Your task to perform on an android device: toggle sleep mode Image 0: 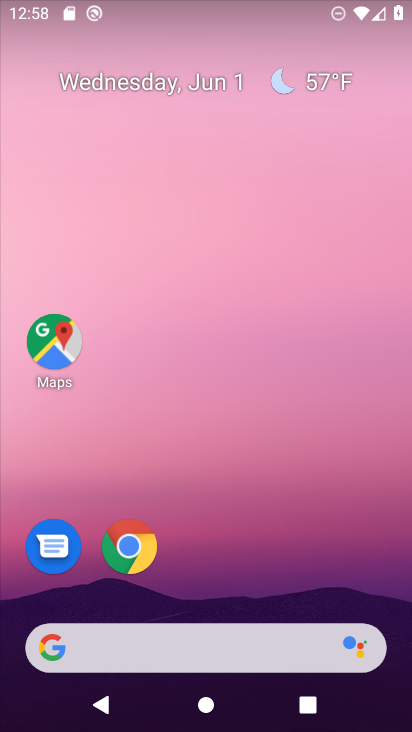
Step 0: drag from (205, 594) to (182, 5)
Your task to perform on an android device: toggle sleep mode Image 1: 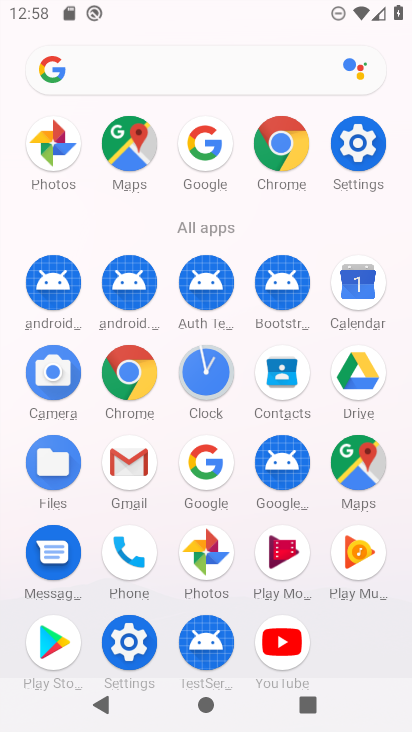
Step 1: click (356, 143)
Your task to perform on an android device: toggle sleep mode Image 2: 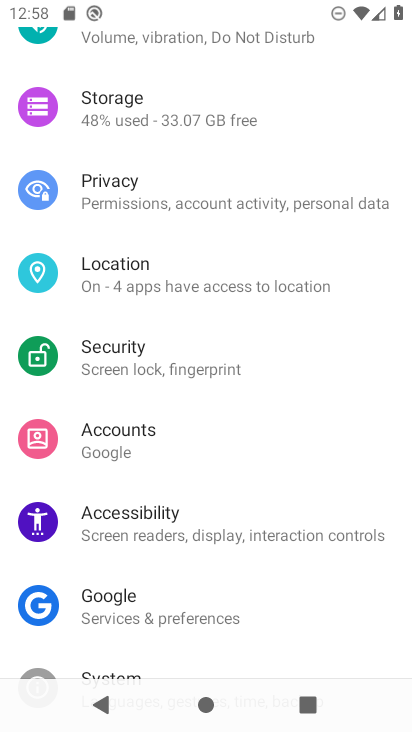
Step 2: drag from (202, 168) to (126, 647)
Your task to perform on an android device: toggle sleep mode Image 3: 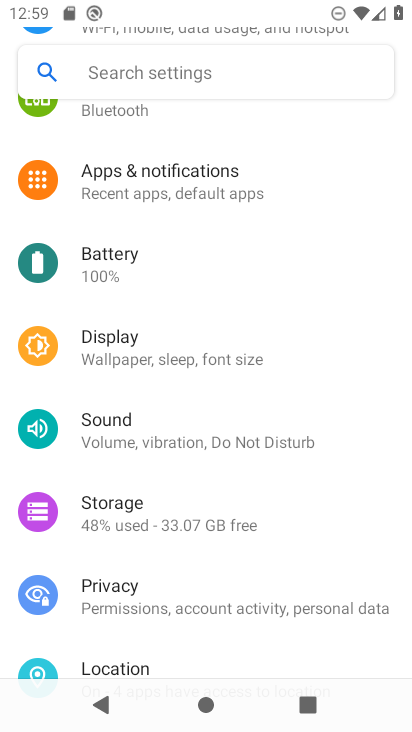
Step 3: click (123, 356)
Your task to perform on an android device: toggle sleep mode Image 4: 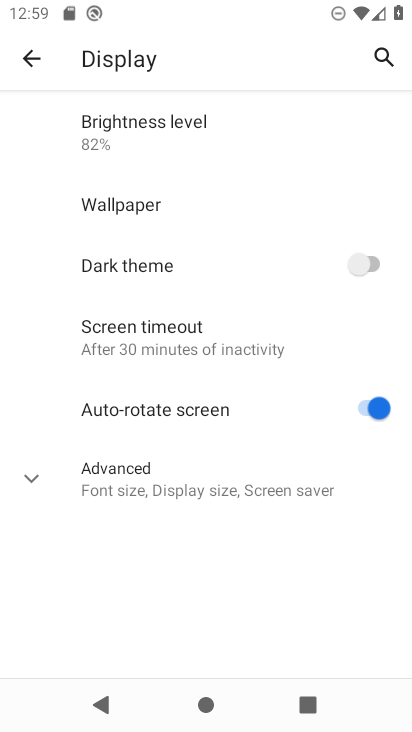
Step 4: click (130, 457)
Your task to perform on an android device: toggle sleep mode Image 5: 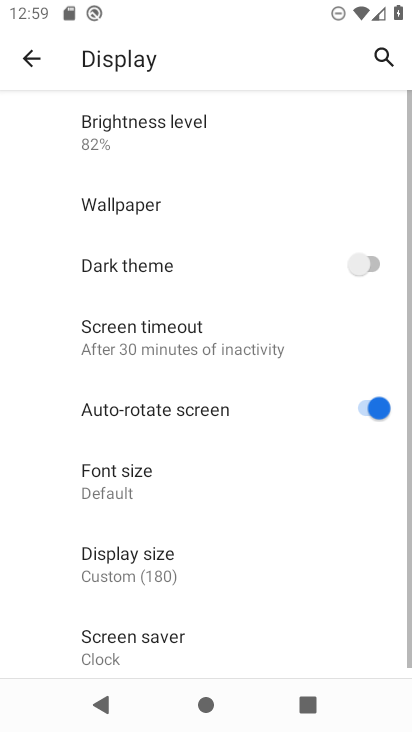
Step 5: task complete